Your task to perform on an android device: turn smart compose on in the gmail app Image 0: 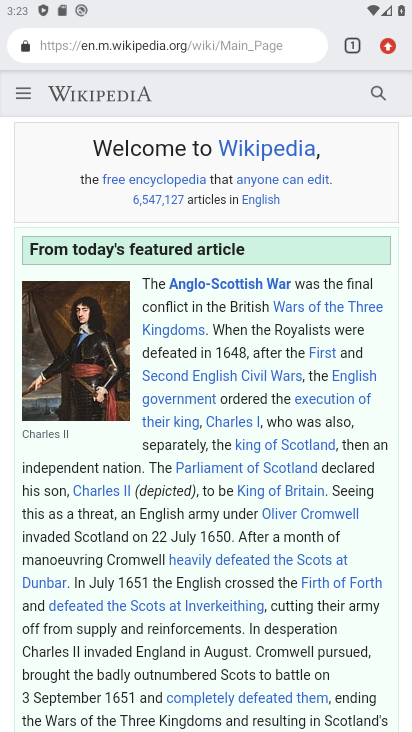
Step 0: press home button
Your task to perform on an android device: turn smart compose on in the gmail app Image 1: 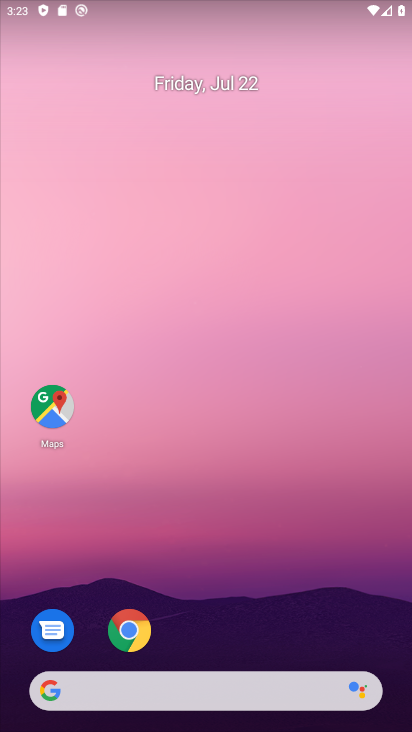
Step 1: drag from (249, 610) to (265, 209)
Your task to perform on an android device: turn smart compose on in the gmail app Image 2: 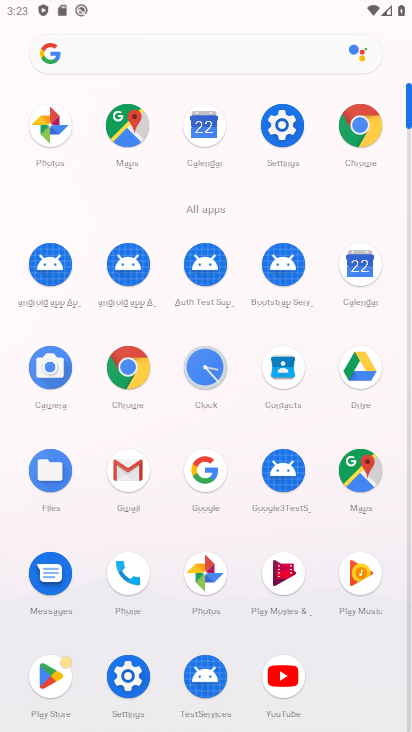
Step 2: click (133, 478)
Your task to perform on an android device: turn smart compose on in the gmail app Image 3: 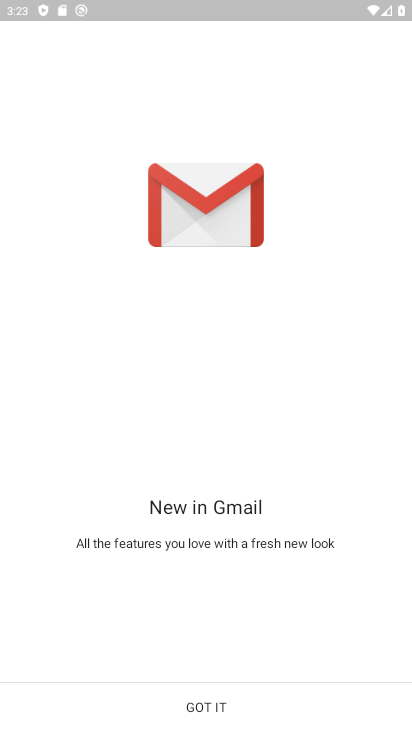
Step 3: click (248, 689)
Your task to perform on an android device: turn smart compose on in the gmail app Image 4: 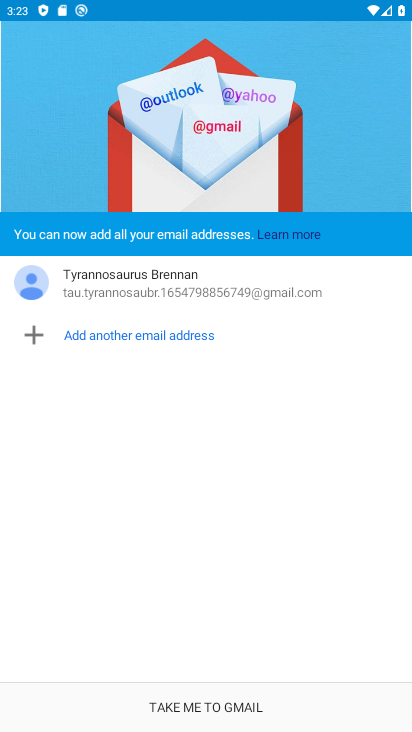
Step 4: click (221, 704)
Your task to perform on an android device: turn smart compose on in the gmail app Image 5: 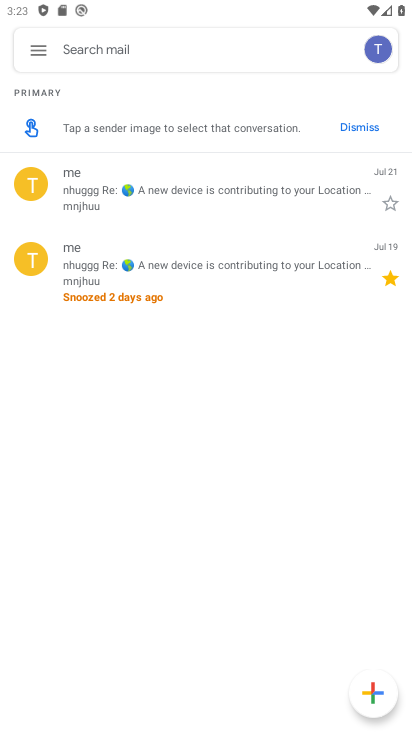
Step 5: click (40, 59)
Your task to perform on an android device: turn smart compose on in the gmail app Image 6: 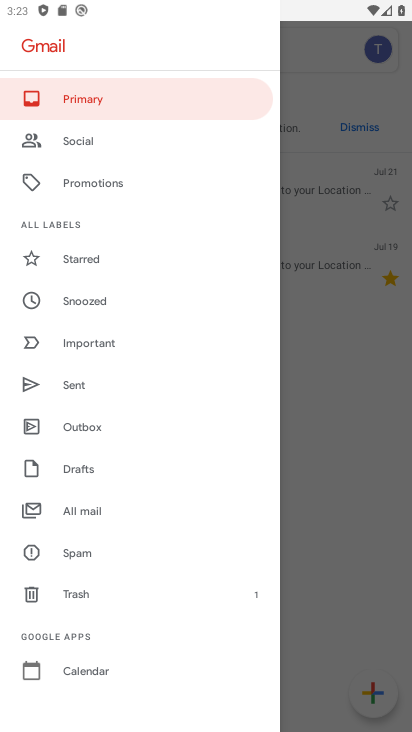
Step 6: drag from (99, 653) to (165, 244)
Your task to perform on an android device: turn smart compose on in the gmail app Image 7: 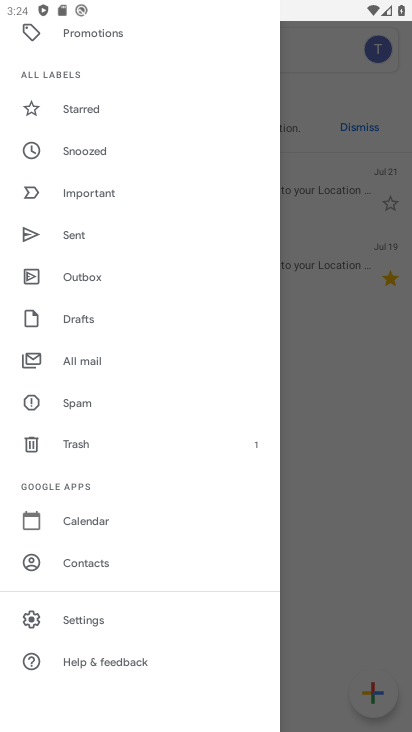
Step 7: click (92, 621)
Your task to perform on an android device: turn smart compose on in the gmail app Image 8: 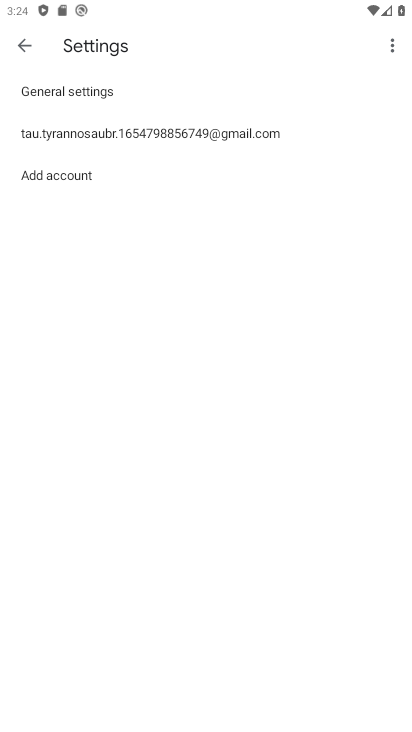
Step 8: click (131, 126)
Your task to perform on an android device: turn smart compose on in the gmail app Image 9: 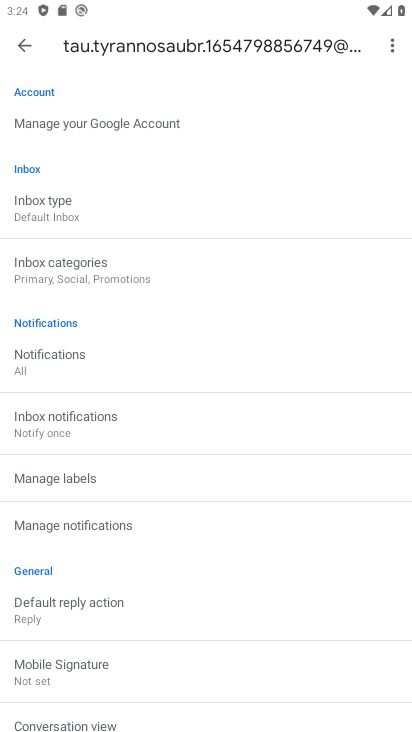
Step 9: task complete